Your task to perform on an android device: visit the assistant section in the google photos Image 0: 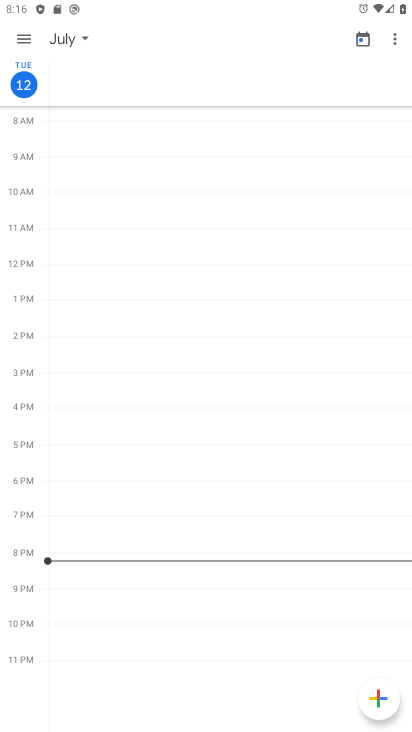
Step 0: press home button
Your task to perform on an android device: visit the assistant section in the google photos Image 1: 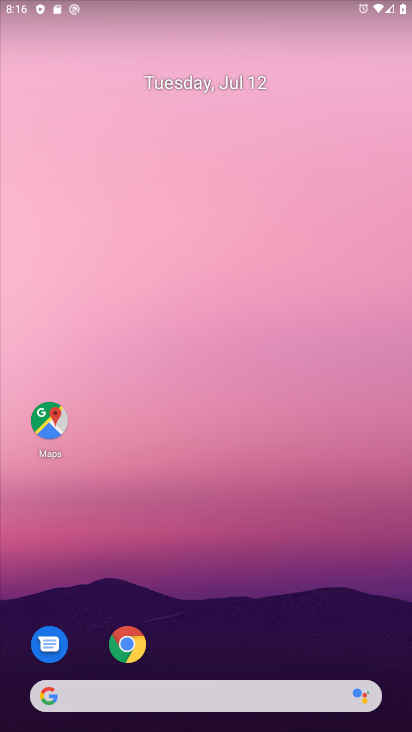
Step 1: drag from (94, 526) to (205, 8)
Your task to perform on an android device: visit the assistant section in the google photos Image 2: 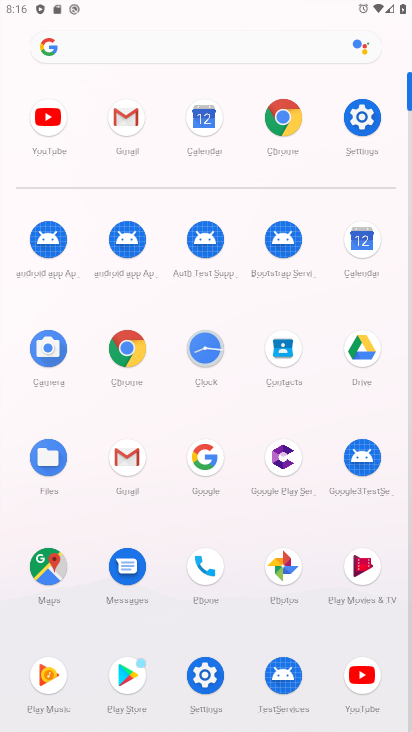
Step 2: click (283, 568)
Your task to perform on an android device: visit the assistant section in the google photos Image 3: 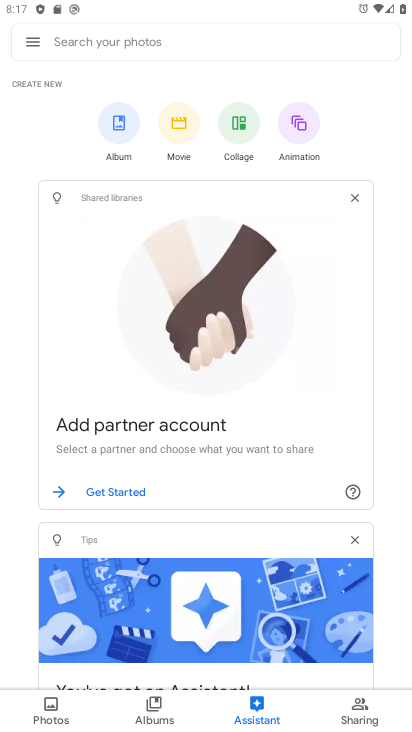
Step 3: task complete